Your task to perform on an android device: turn off translation in the chrome app Image 0: 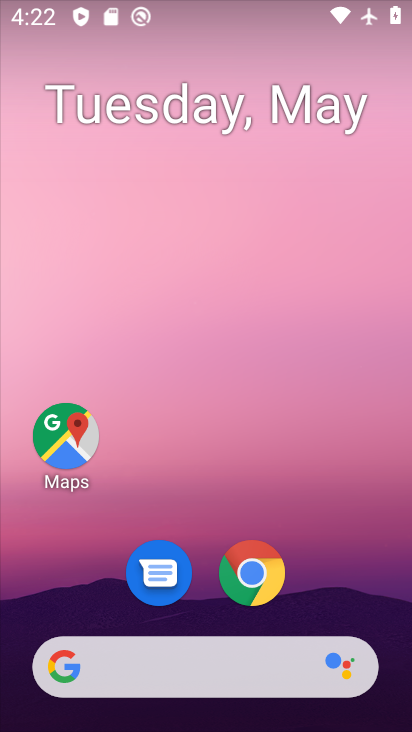
Step 0: drag from (333, 585) to (219, 137)
Your task to perform on an android device: turn off translation in the chrome app Image 1: 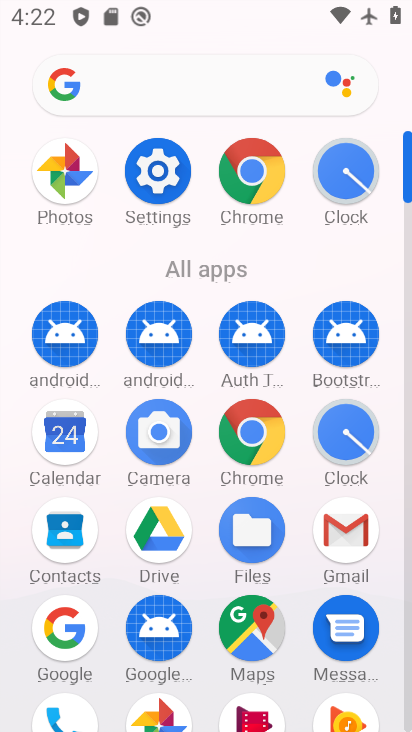
Step 1: click (246, 437)
Your task to perform on an android device: turn off translation in the chrome app Image 2: 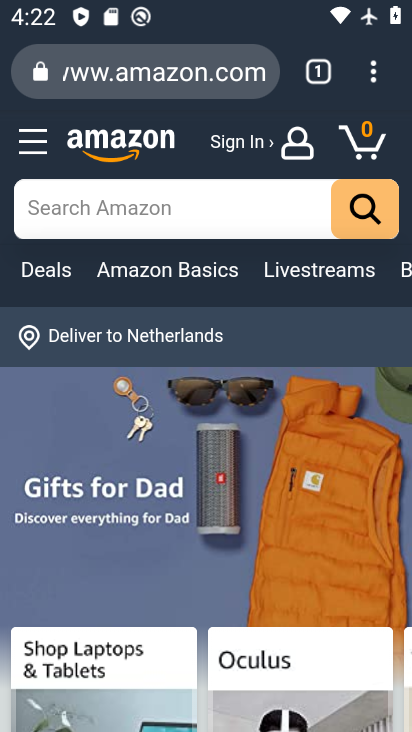
Step 2: click (377, 64)
Your task to perform on an android device: turn off translation in the chrome app Image 3: 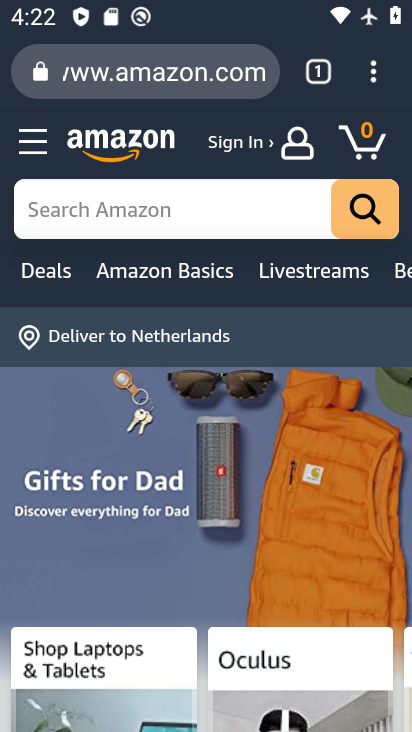
Step 3: drag from (377, 72) to (140, 567)
Your task to perform on an android device: turn off translation in the chrome app Image 4: 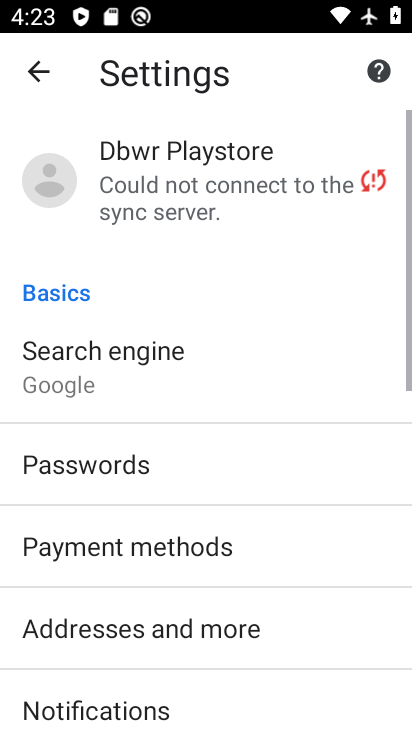
Step 4: drag from (141, 566) to (112, 46)
Your task to perform on an android device: turn off translation in the chrome app Image 5: 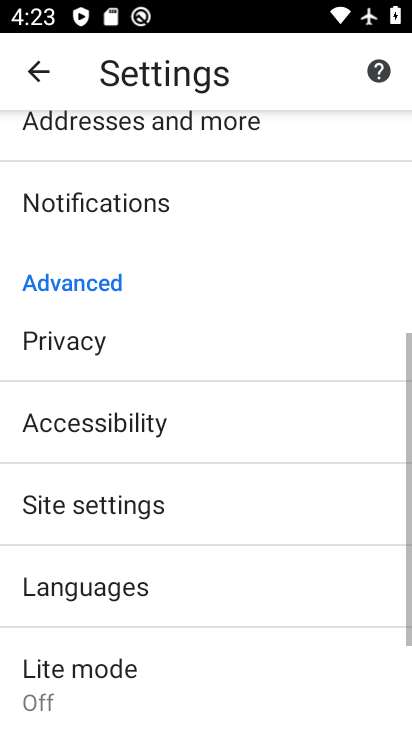
Step 5: drag from (163, 531) to (152, 179)
Your task to perform on an android device: turn off translation in the chrome app Image 6: 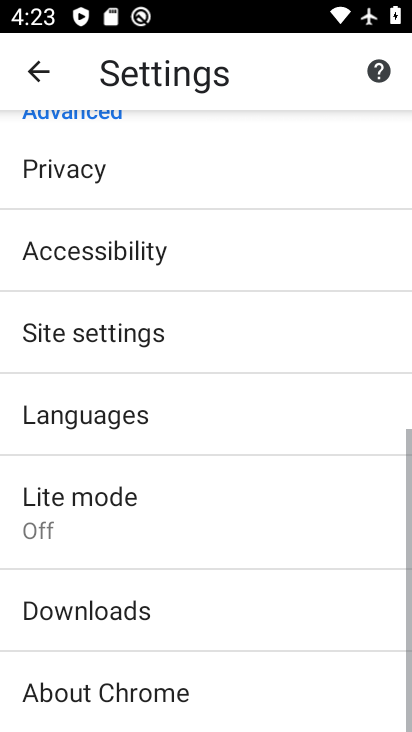
Step 6: click (111, 430)
Your task to perform on an android device: turn off translation in the chrome app Image 7: 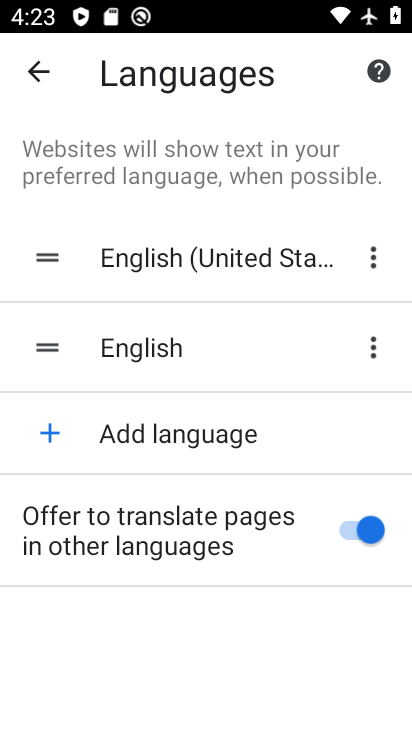
Step 7: click (357, 512)
Your task to perform on an android device: turn off translation in the chrome app Image 8: 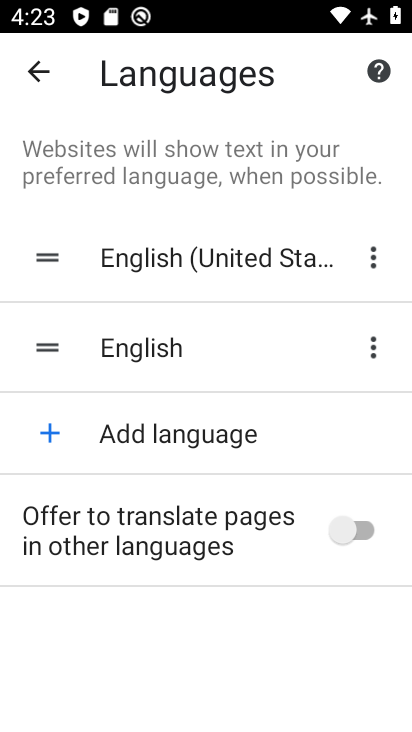
Step 8: task complete